Your task to perform on an android device: Find coffee shops on Maps Image 0: 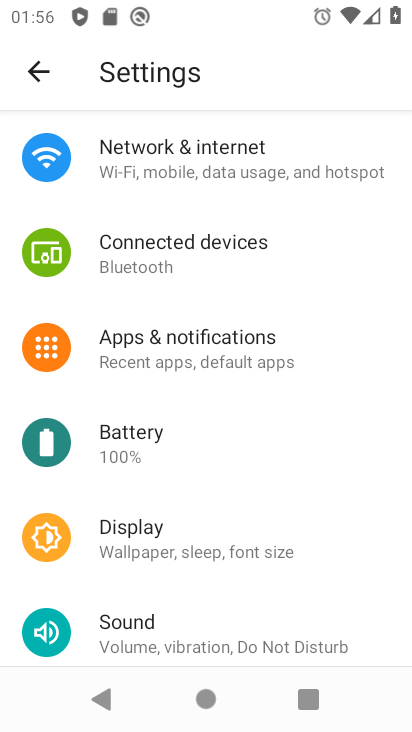
Step 0: press home button
Your task to perform on an android device: Find coffee shops on Maps Image 1: 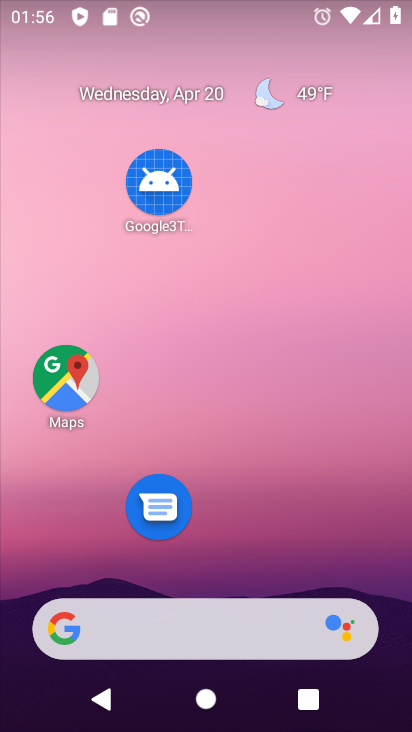
Step 1: click (57, 381)
Your task to perform on an android device: Find coffee shops on Maps Image 2: 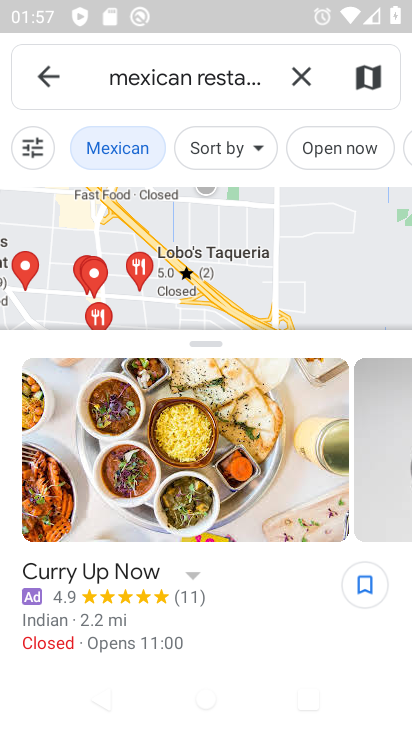
Step 2: click (306, 77)
Your task to perform on an android device: Find coffee shops on Maps Image 3: 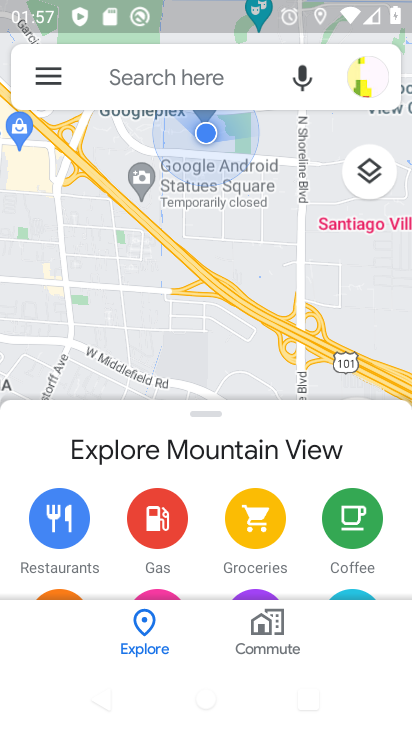
Step 3: click (144, 85)
Your task to perform on an android device: Find coffee shops on Maps Image 4: 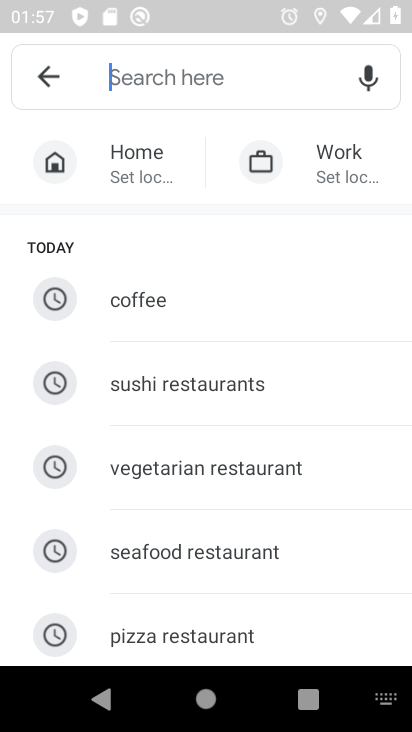
Step 4: click (146, 298)
Your task to perform on an android device: Find coffee shops on Maps Image 5: 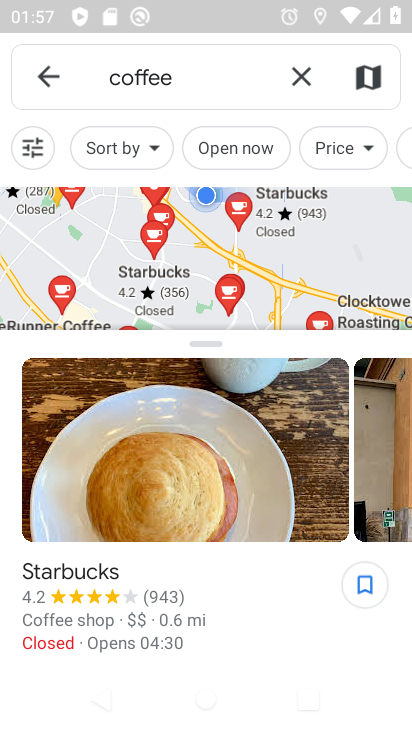
Step 5: task complete